Your task to perform on an android device: turn off location history Image 0: 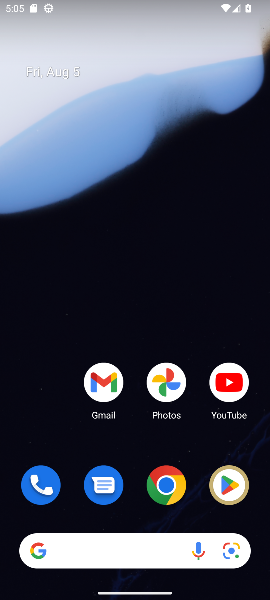
Step 0: drag from (202, 440) to (180, 157)
Your task to perform on an android device: turn off location history Image 1: 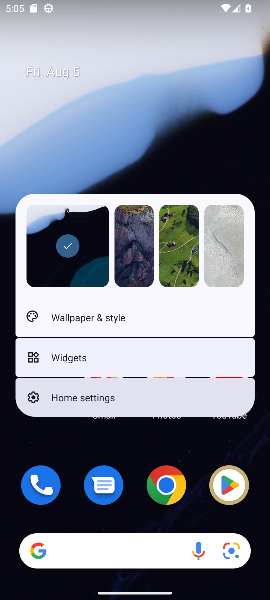
Step 1: click (174, 143)
Your task to perform on an android device: turn off location history Image 2: 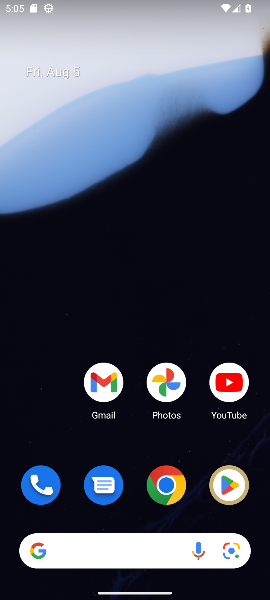
Step 2: drag from (214, 310) to (195, 45)
Your task to perform on an android device: turn off location history Image 3: 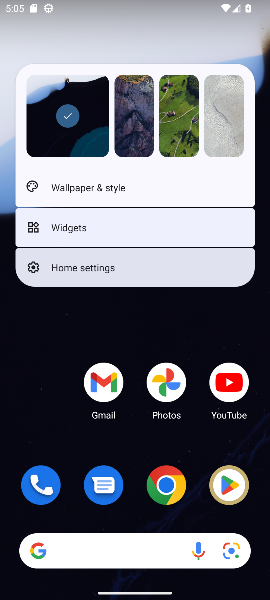
Step 3: click (33, 402)
Your task to perform on an android device: turn off location history Image 4: 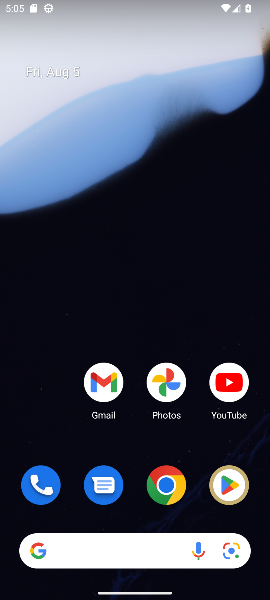
Step 4: drag from (33, 402) to (58, 90)
Your task to perform on an android device: turn off location history Image 5: 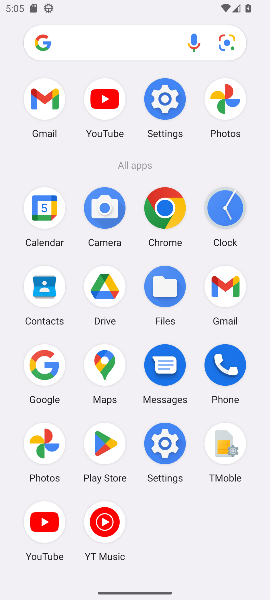
Step 5: click (163, 443)
Your task to perform on an android device: turn off location history Image 6: 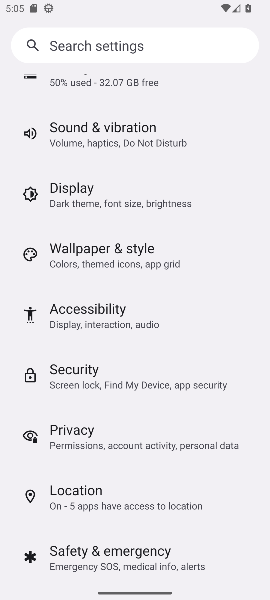
Step 6: click (134, 496)
Your task to perform on an android device: turn off location history Image 7: 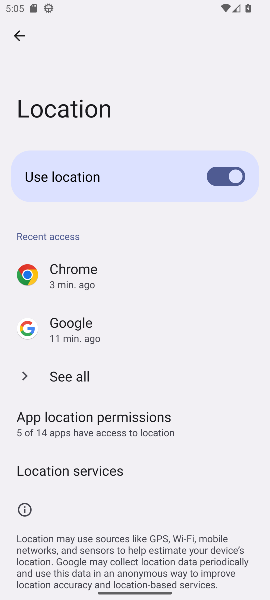
Step 7: click (119, 475)
Your task to perform on an android device: turn off location history Image 8: 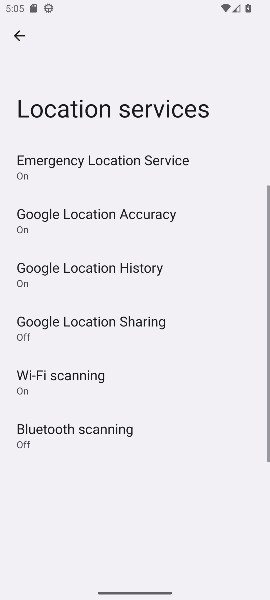
Step 8: click (93, 266)
Your task to perform on an android device: turn off location history Image 9: 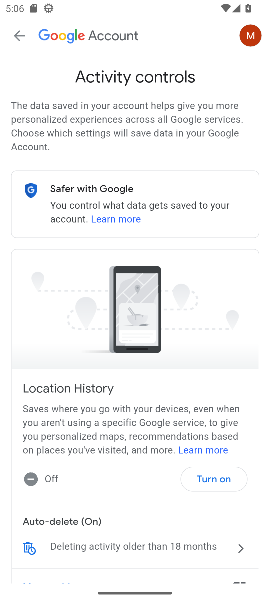
Step 9: task complete